Your task to perform on an android device: Open Android settings Image 0: 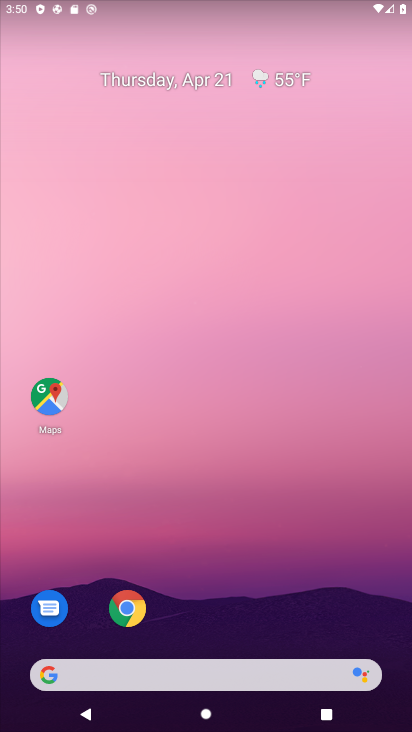
Step 0: drag from (231, 559) to (257, 138)
Your task to perform on an android device: Open Android settings Image 1: 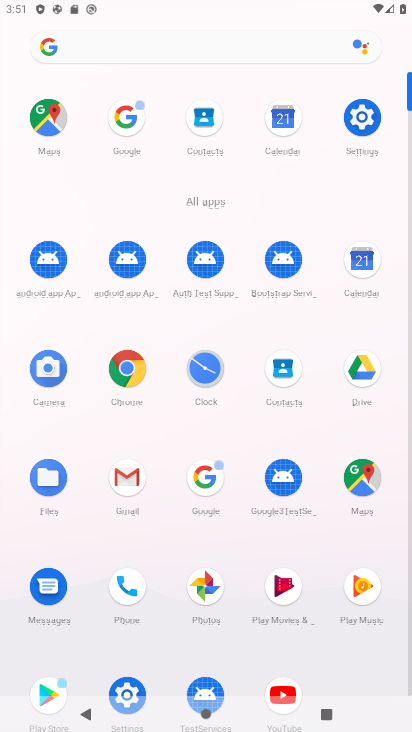
Step 1: click (358, 127)
Your task to perform on an android device: Open Android settings Image 2: 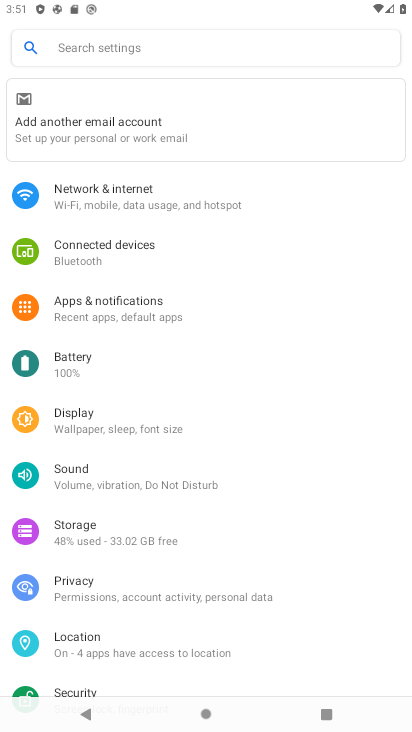
Step 2: drag from (258, 511) to (258, 306)
Your task to perform on an android device: Open Android settings Image 3: 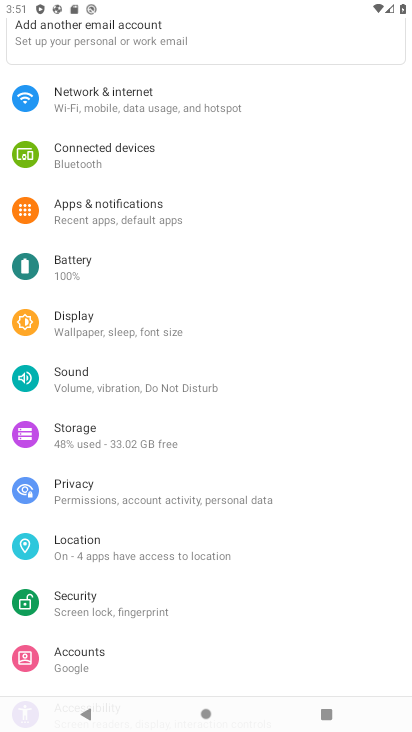
Step 3: drag from (205, 656) to (221, 439)
Your task to perform on an android device: Open Android settings Image 4: 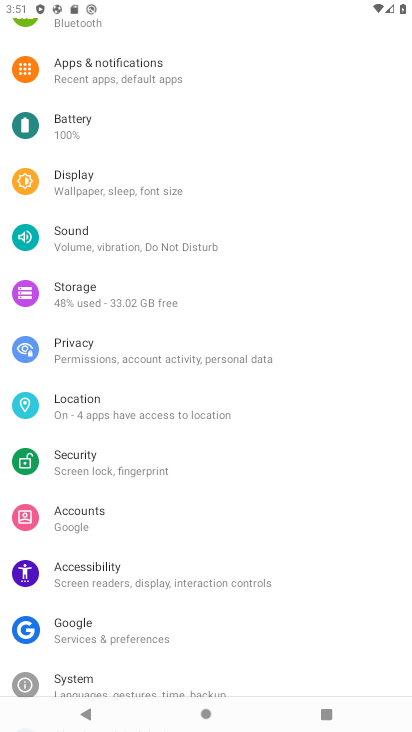
Step 4: drag from (223, 570) to (249, 357)
Your task to perform on an android device: Open Android settings Image 5: 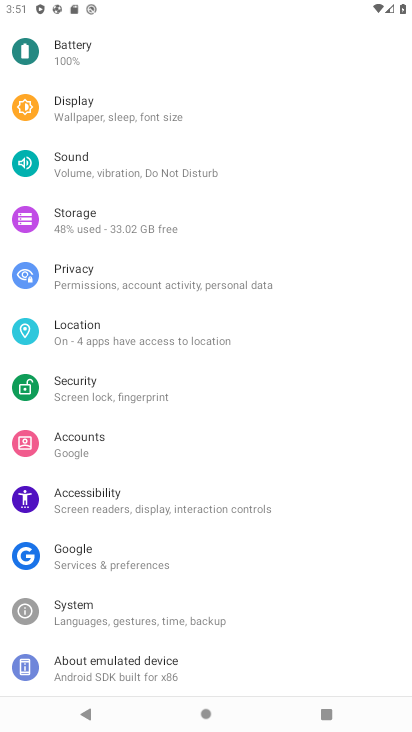
Step 5: drag from (242, 496) to (249, 358)
Your task to perform on an android device: Open Android settings Image 6: 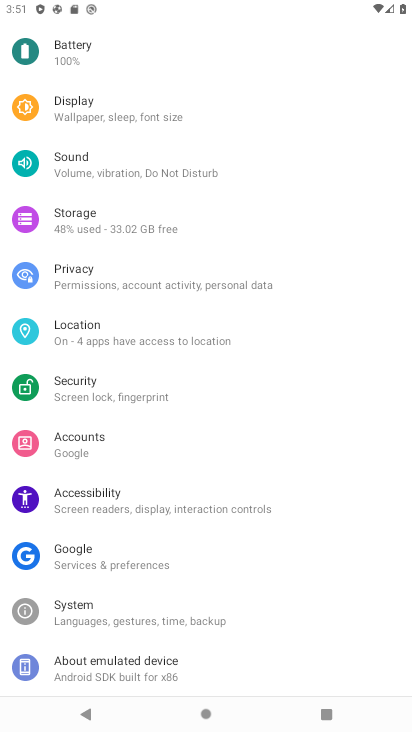
Step 6: click (235, 663)
Your task to perform on an android device: Open Android settings Image 7: 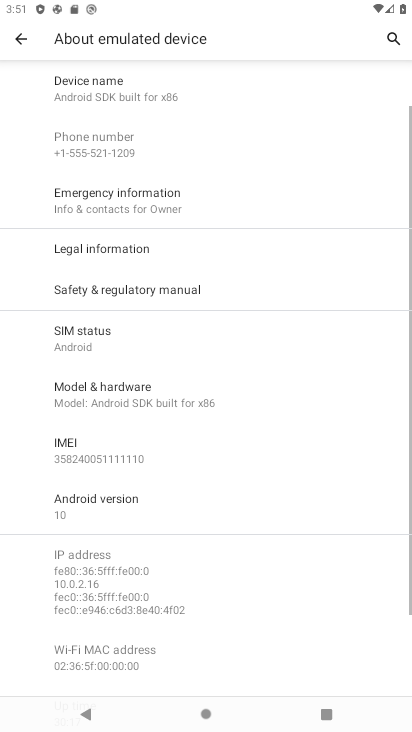
Step 7: task complete